Your task to perform on an android device: Do I have any events today? Image 0: 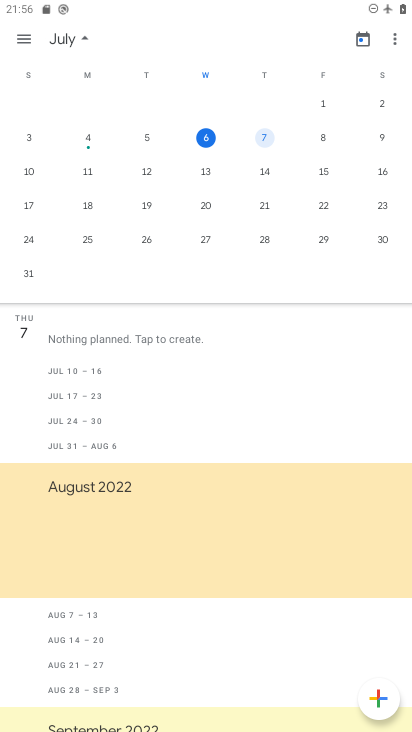
Step 0: task complete